Your task to perform on an android device: Go to eBay Image 0: 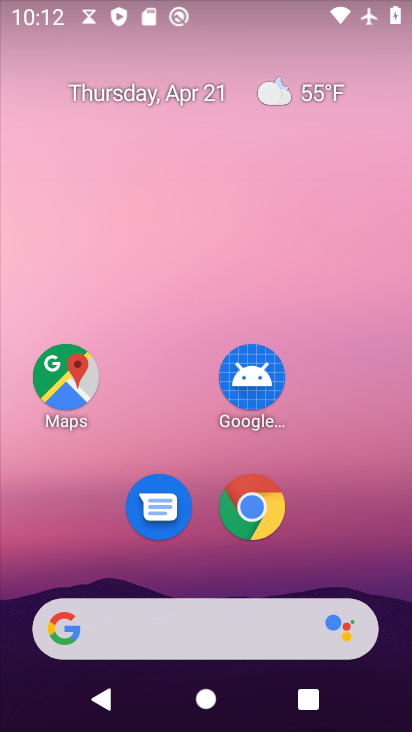
Step 0: drag from (288, 477) to (335, 189)
Your task to perform on an android device: Go to eBay Image 1: 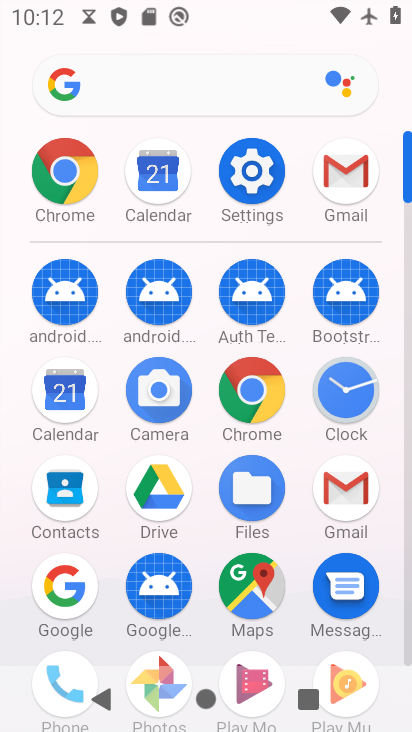
Step 1: click (265, 372)
Your task to perform on an android device: Go to eBay Image 2: 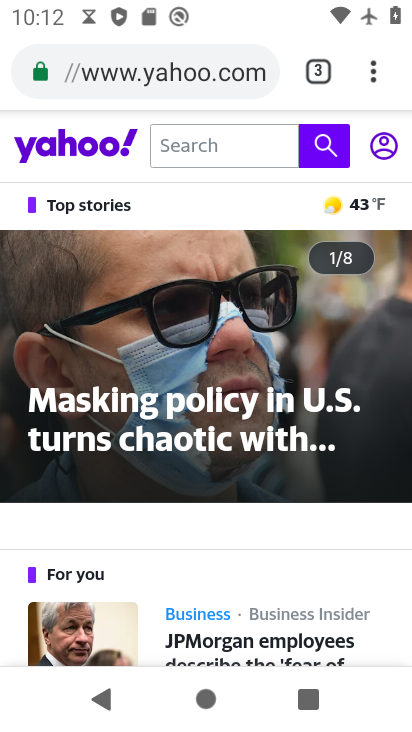
Step 2: click (363, 69)
Your task to perform on an android device: Go to eBay Image 3: 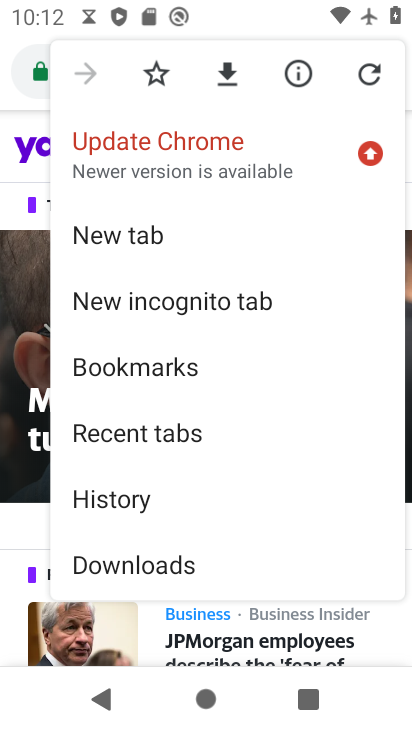
Step 3: click (219, 229)
Your task to perform on an android device: Go to eBay Image 4: 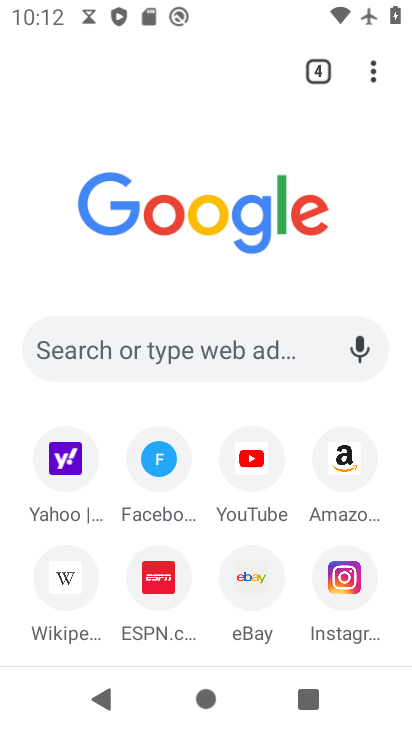
Step 4: click (251, 582)
Your task to perform on an android device: Go to eBay Image 5: 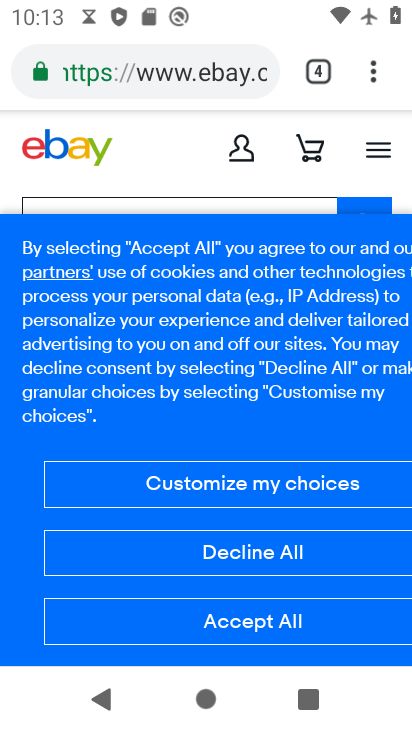
Step 5: task complete